Your task to perform on an android device: Show me the alarms in the clock app Image 0: 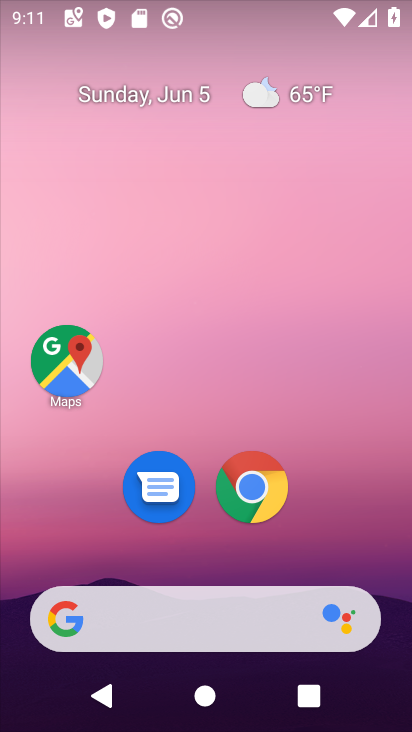
Step 0: drag from (63, 594) to (181, 131)
Your task to perform on an android device: Show me the alarms in the clock app Image 1: 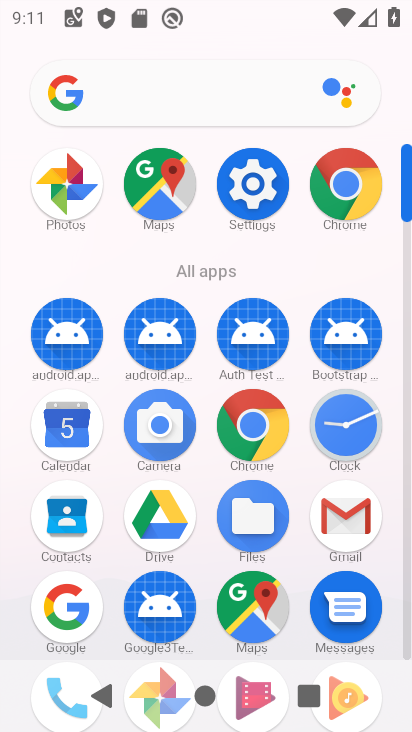
Step 1: click (358, 438)
Your task to perform on an android device: Show me the alarms in the clock app Image 2: 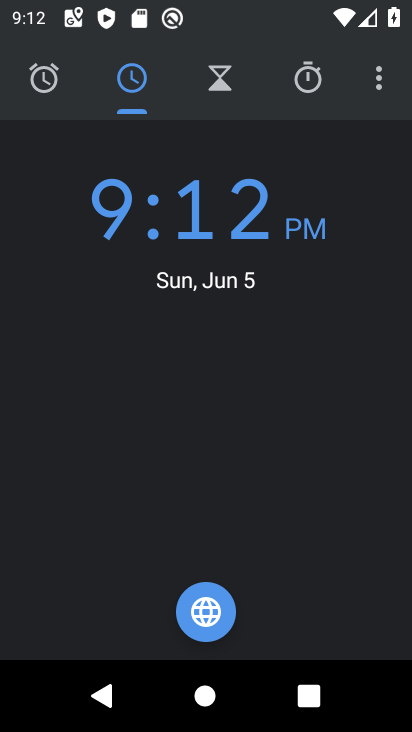
Step 2: click (61, 90)
Your task to perform on an android device: Show me the alarms in the clock app Image 3: 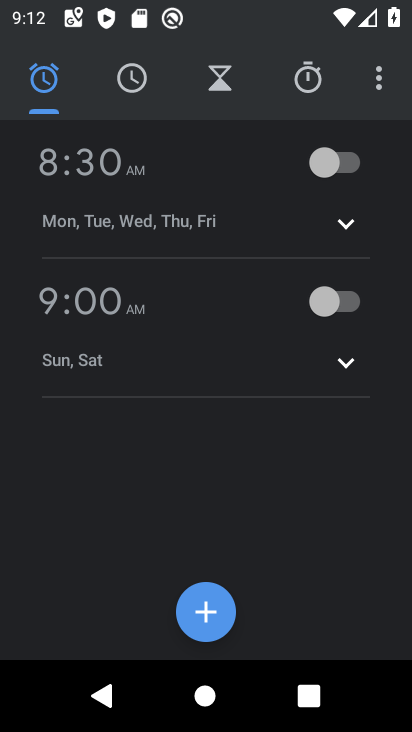
Step 3: task complete